Your task to perform on an android device: Open the Play Movies app and select the watchlist tab. Image 0: 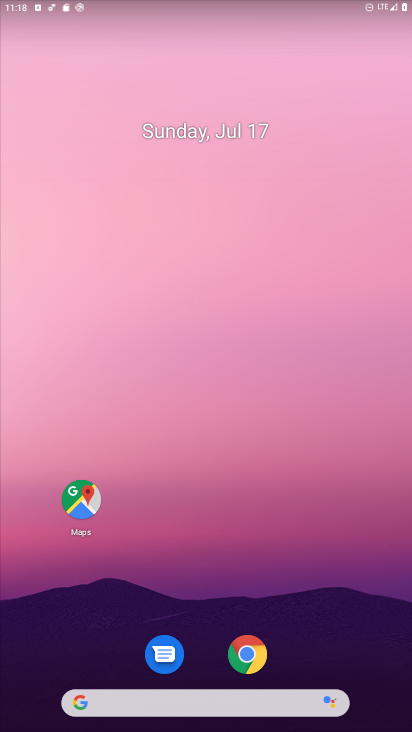
Step 0: drag from (209, 565) to (217, 203)
Your task to perform on an android device: Open the Play Movies app and select the watchlist tab. Image 1: 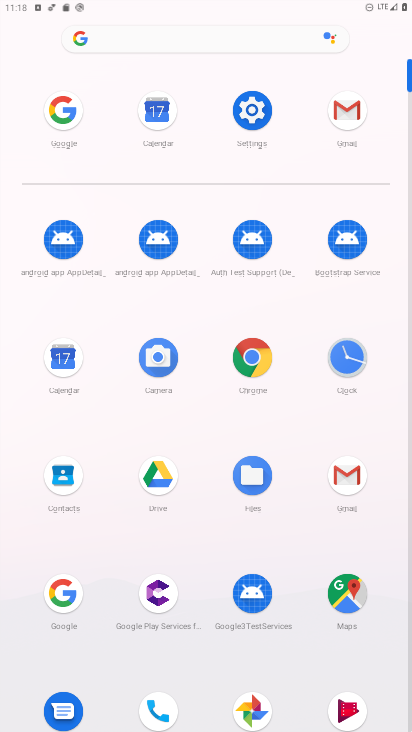
Step 1: click (354, 711)
Your task to perform on an android device: Open the Play Movies app and select the watchlist tab. Image 2: 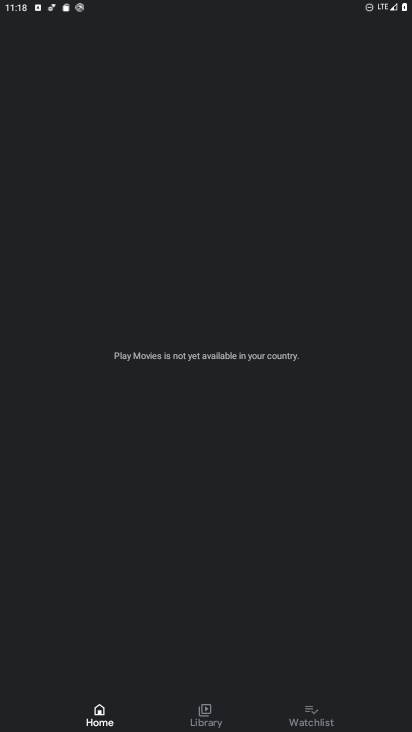
Step 2: click (320, 704)
Your task to perform on an android device: Open the Play Movies app and select the watchlist tab. Image 3: 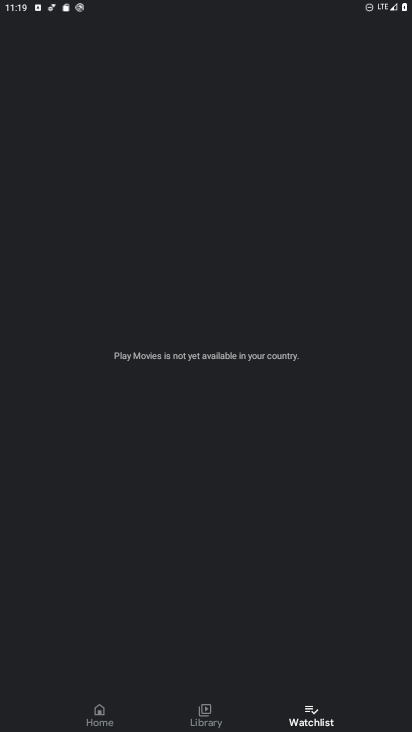
Step 3: task complete